Your task to perform on an android device: Search for vegetarian restaurants on Maps Image 0: 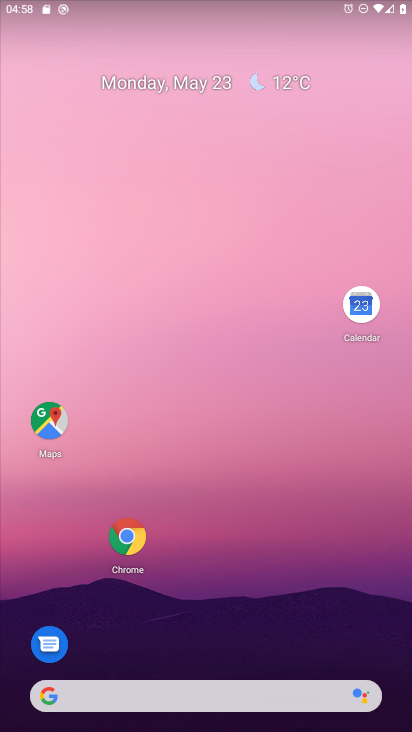
Step 0: click (44, 405)
Your task to perform on an android device: Search for vegetarian restaurants on Maps Image 1: 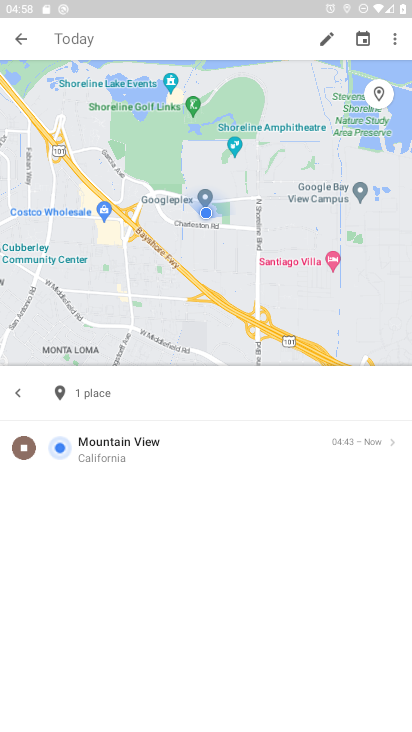
Step 1: click (18, 40)
Your task to perform on an android device: Search for vegetarian restaurants on Maps Image 2: 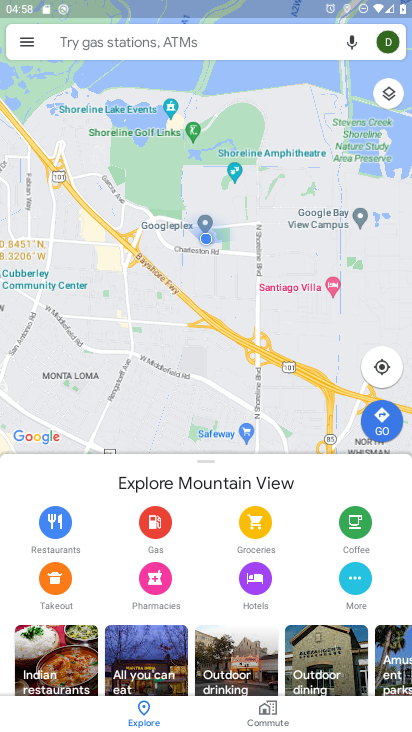
Step 2: click (100, 36)
Your task to perform on an android device: Search for vegetarian restaurants on Maps Image 3: 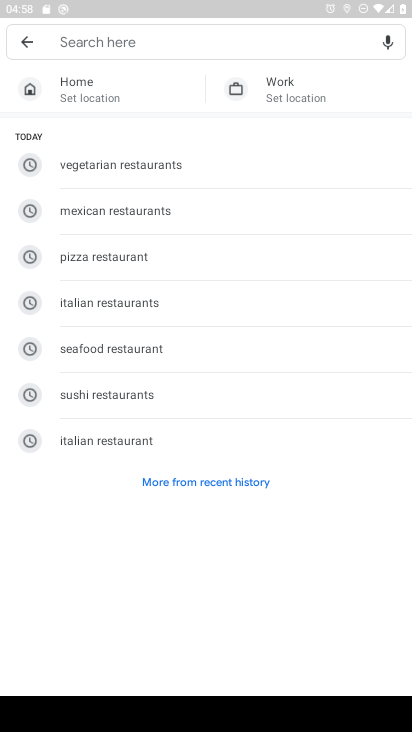
Step 3: click (170, 160)
Your task to perform on an android device: Search for vegetarian restaurants on Maps Image 4: 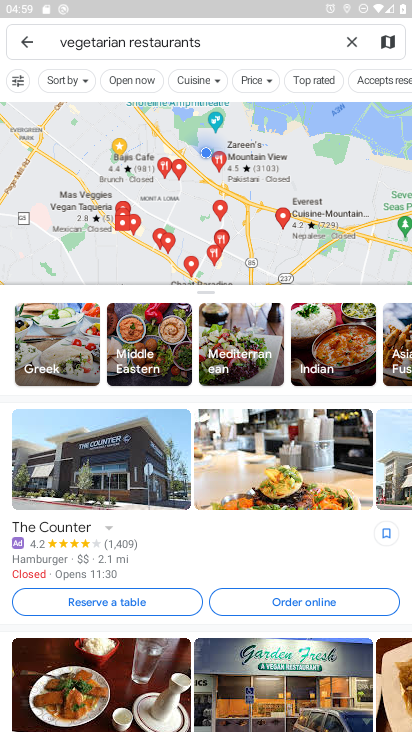
Step 4: task complete